Your task to perform on an android device: Open Wikipedia Image 0: 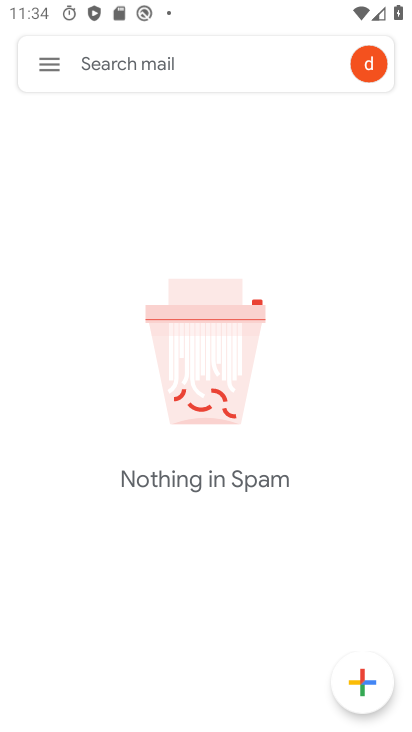
Step 0: press back button
Your task to perform on an android device: Open Wikipedia Image 1: 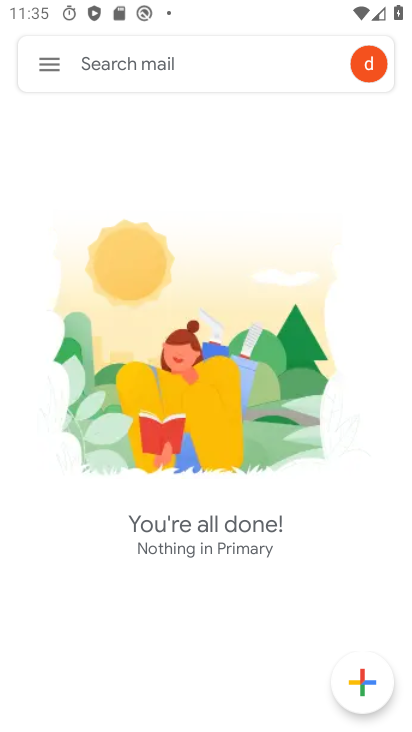
Step 1: press home button
Your task to perform on an android device: Open Wikipedia Image 2: 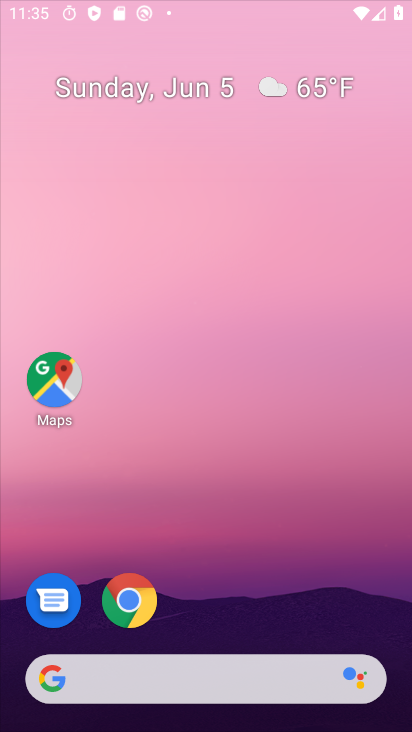
Step 2: drag from (228, 679) to (211, 0)
Your task to perform on an android device: Open Wikipedia Image 3: 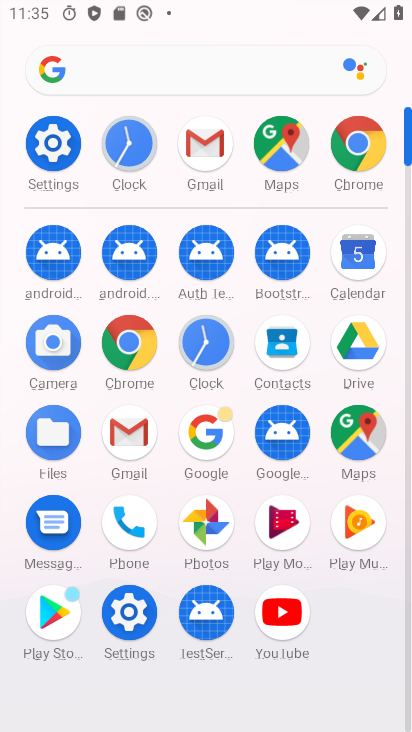
Step 3: click (351, 136)
Your task to perform on an android device: Open Wikipedia Image 4: 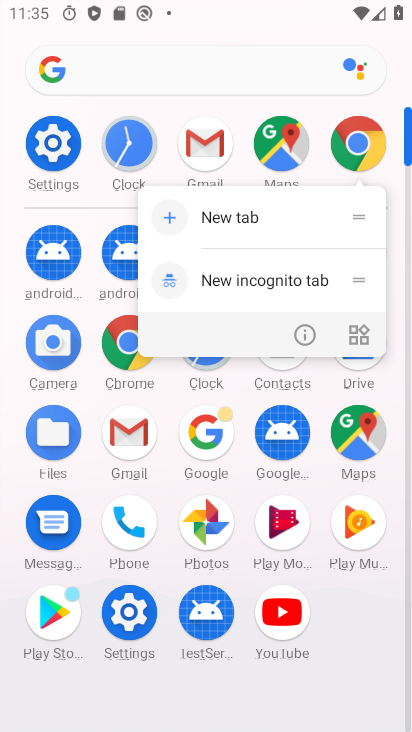
Step 4: click (362, 140)
Your task to perform on an android device: Open Wikipedia Image 5: 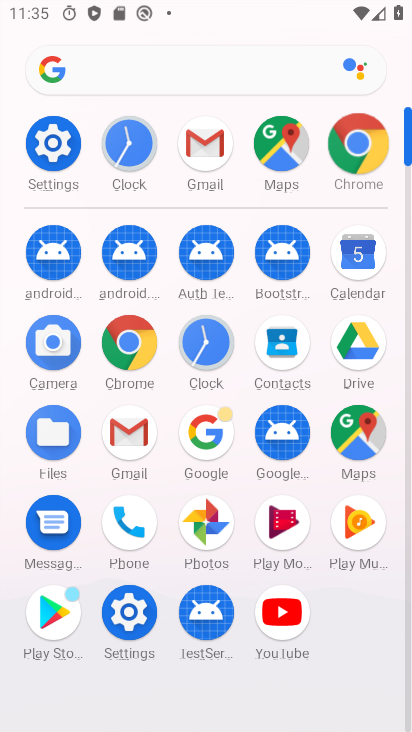
Step 5: click (360, 141)
Your task to perform on an android device: Open Wikipedia Image 6: 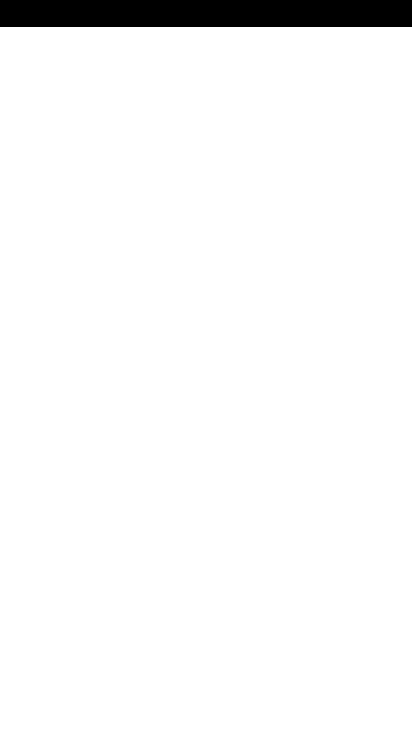
Step 6: click (360, 142)
Your task to perform on an android device: Open Wikipedia Image 7: 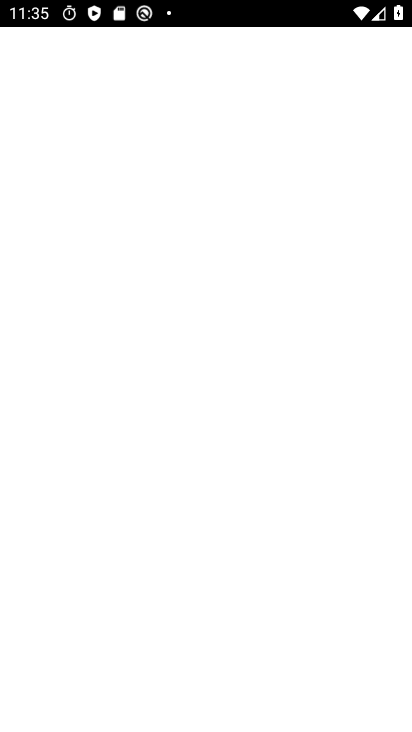
Step 7: click (347, 149)
Your task to perform on an android device: Open Wikipedia Image 8: 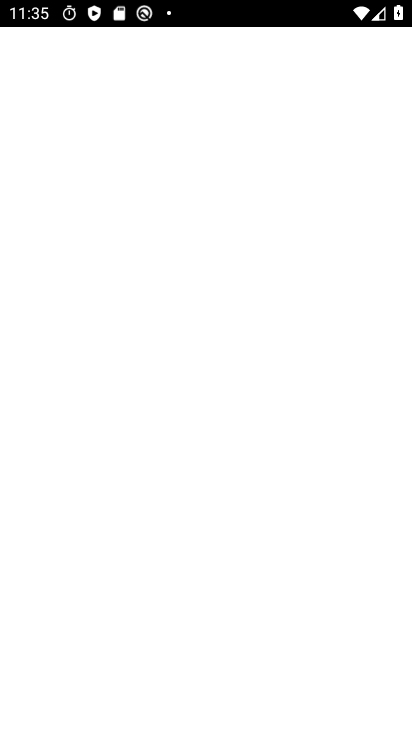
Step 8: click (347, 149)
Your task to perform on an android device: Open Wikipedia Image 9: 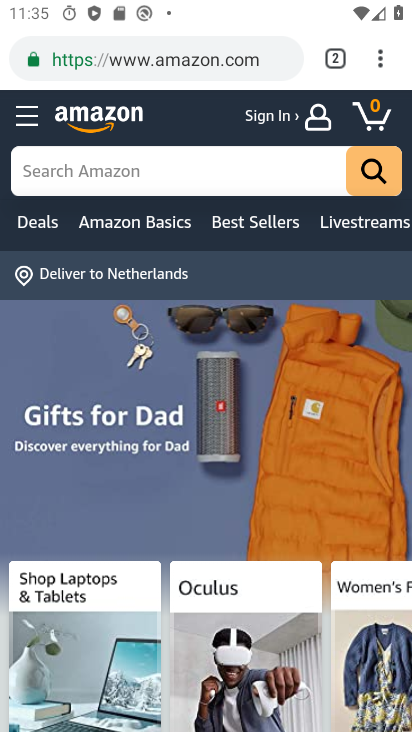
Step 9: drag from (381, 62) to (150, 118)
Your task to perform on an android device: Open Wikipedia Image 10: 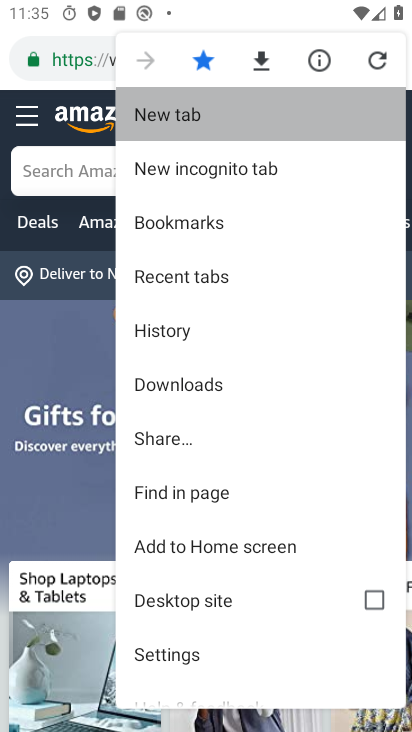
Step 10: click (149, 117)
Your task to perform on an android device: Open Wikipedia Image 11: 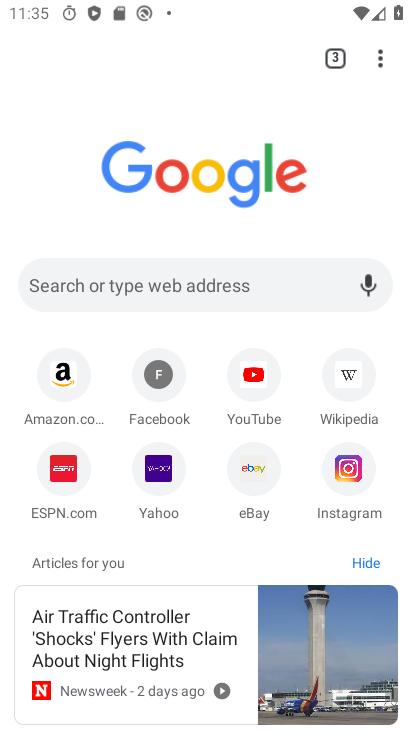
Step 11: click (348, 378)
Your task to perform on an android device: Open Wikipedia Image 12: 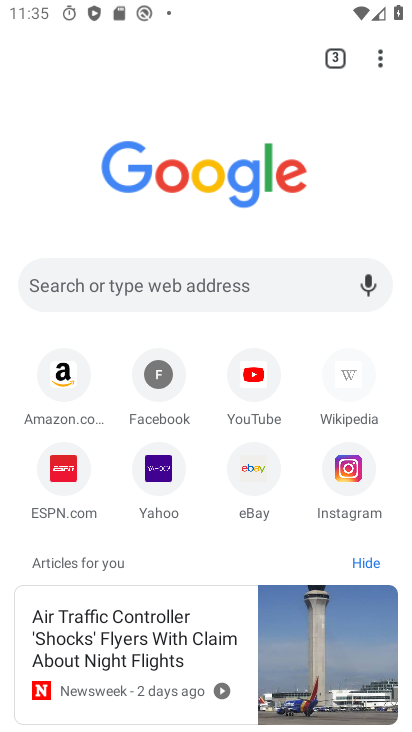
Step 12: click (350, 379)
Your task to perform on an android device: Open Wikipedia Image 13: 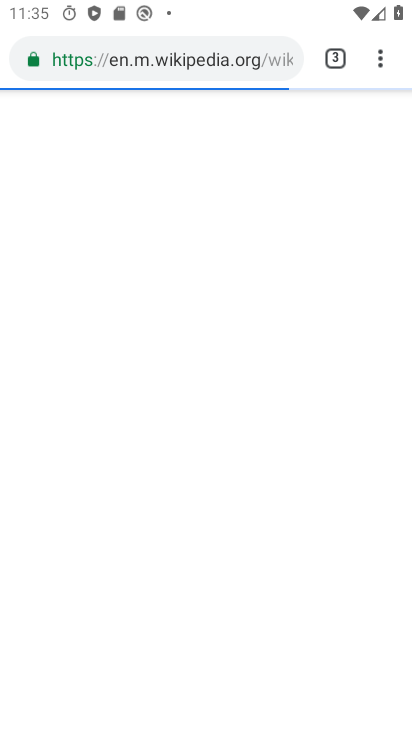
Step 13: click (343, 397)
Your task to perform on an android device: Open Wikipedia Image 14: 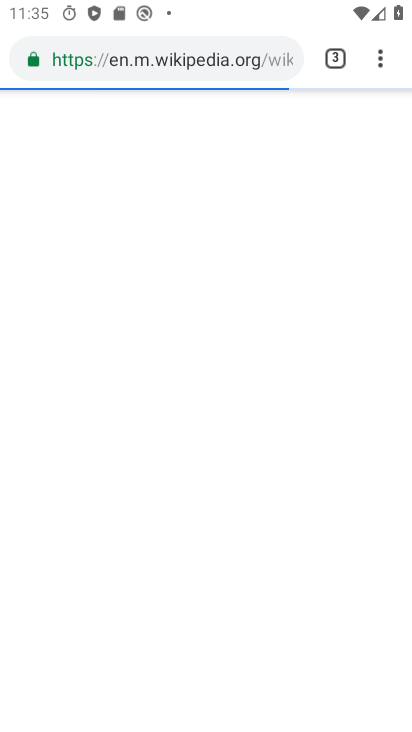
Step 14: click (361, 369)
Your task to perform on an android device: Open Wikipedia Image 15: 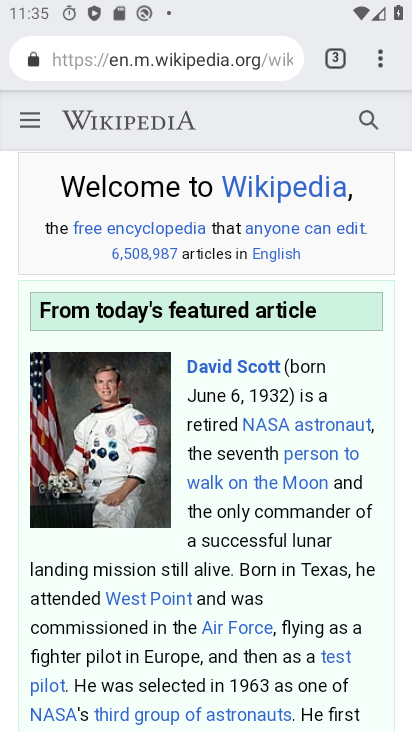
Step 15: task complete